Your task to perform on an android device: Open internet settings Image 0: 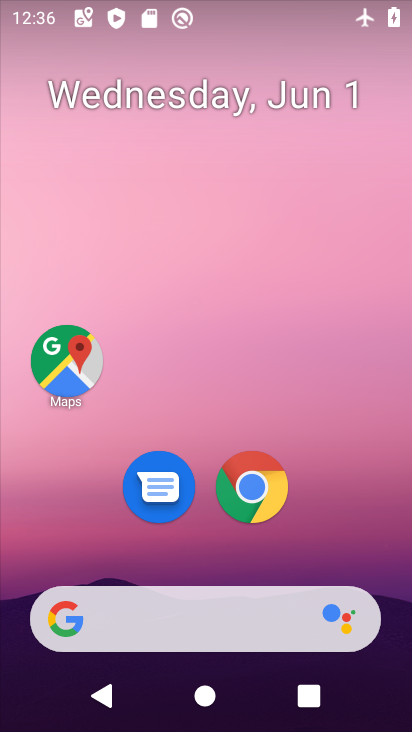
Step 0: drag from (295, 544) to (261, 252)
Your task to perform on an android device: Open internet settings Image 1: 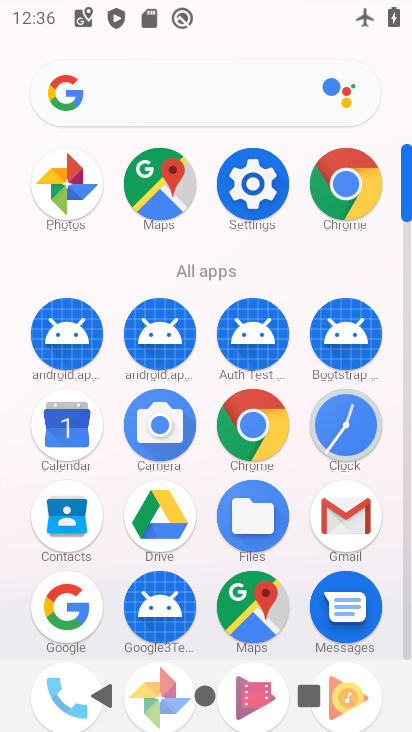
Step 1: click (242, 181)
Your task to perform on an android device: Open internet settings Image 2: 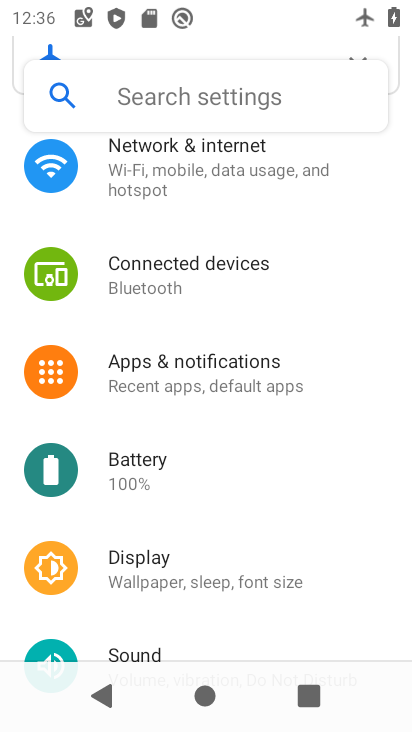
Step 2: drag from (156, 210) to (187, 485)
Your task to perform on an android device: Open internet settings Image 3: 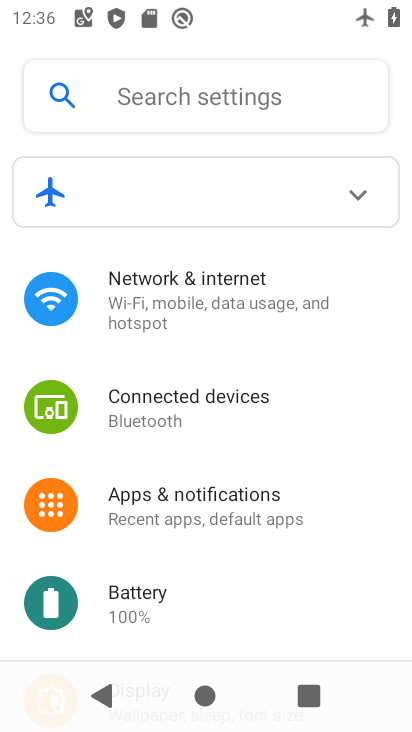
Step 3: click (147, 285)
Your task to perform on an android device: Open internet settings Image 4: 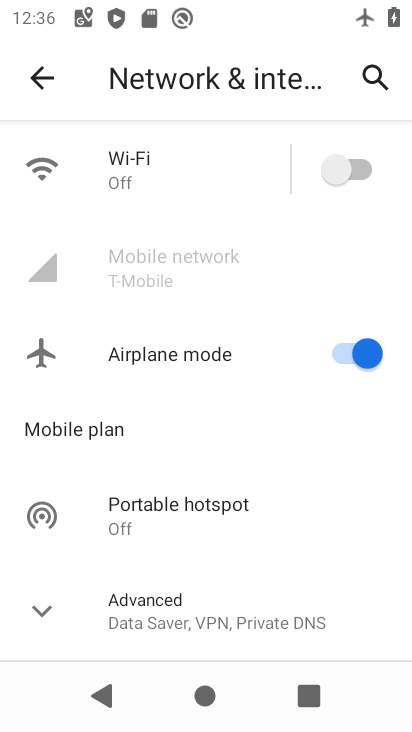
Step 4: task complete